Your task to perform on an android device: Open my contact list Image 0: 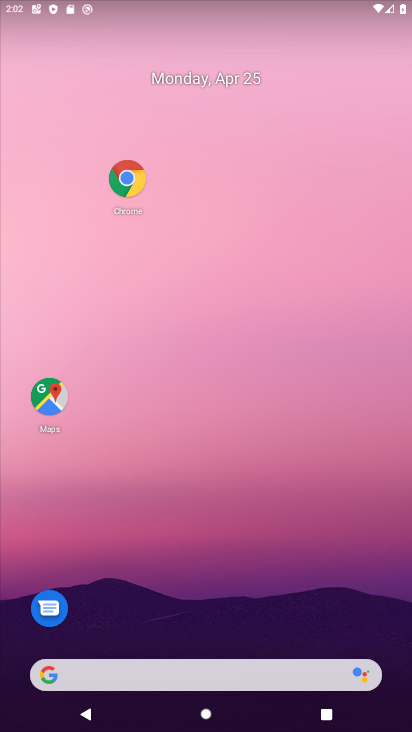
Step 0: drag from (157, 630) to (119, 259)
Your task to perform on an android device: Open my contact list Image 1: 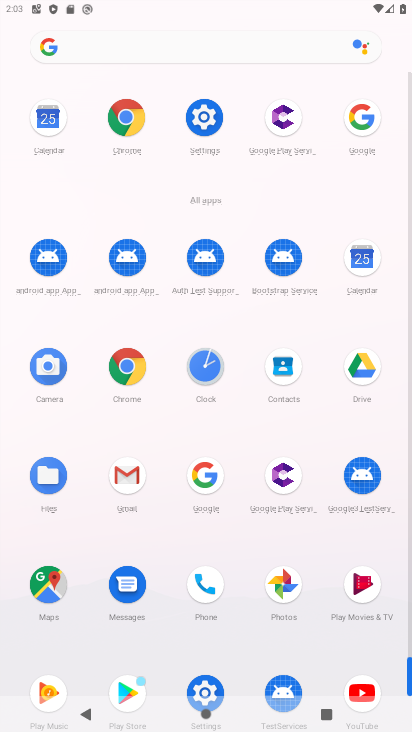
Step 1: click (265, 364)
Your task to perform on an android device: Open my contact list Image 2: 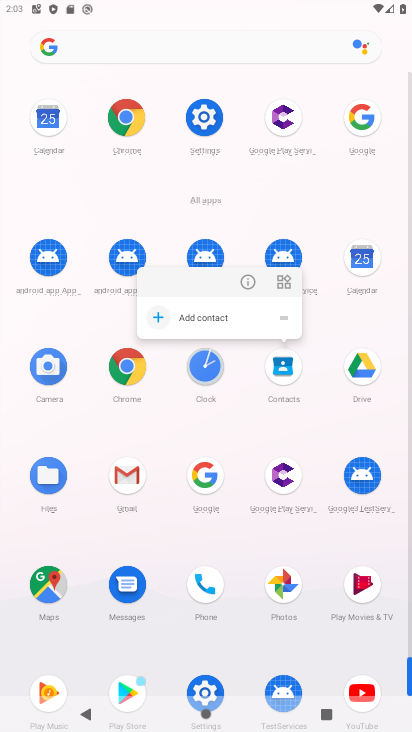
Step 2: click (255, 284)
Your task to perform on an android device: Open my contact list Image 3: 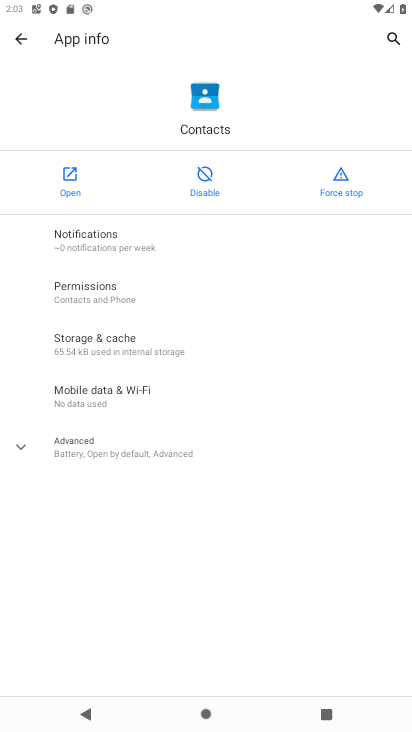
Step 3: click (68, 173)
Your task to perform on an android device: Open my contact list Image 4: 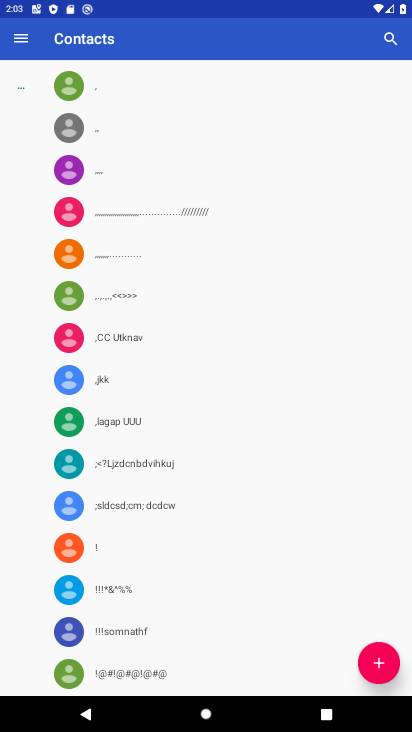
Step 4: task complete